Your task to perform on an android device: Go to location settings Image 0: 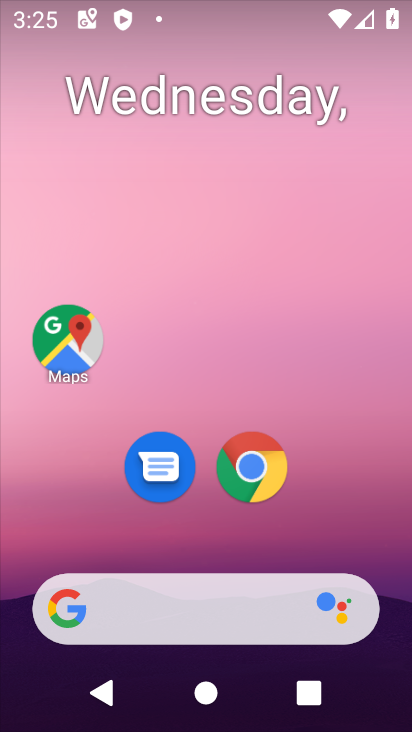
Step 0: drag from (138, 577) to (287, 114)
Your task to perform on an android device: Go to location settings Image 1: 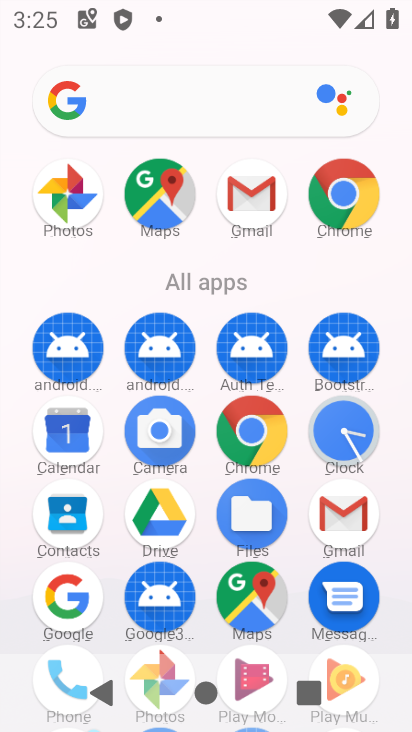
Step 1: drag from (181, 605) to (243, 374)
Your task to perform on an android device: Go to location settings Image 2: 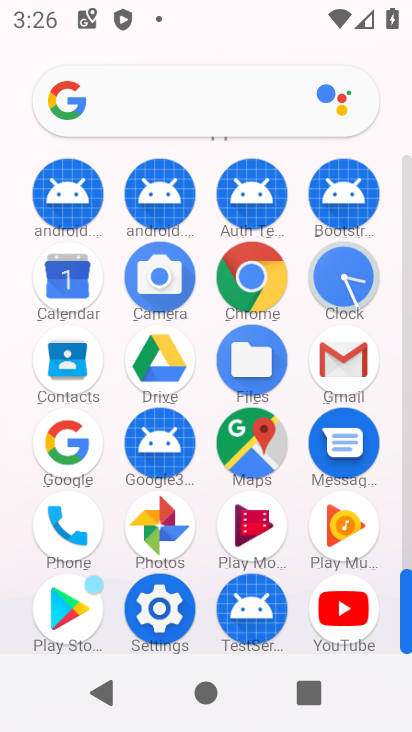
Step 2: click (175, 619)
Your task to perform on an android device: Go to location settings Image 3: 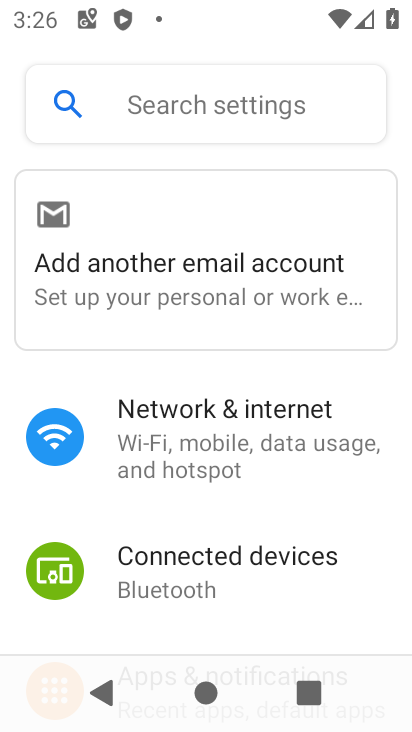
Step 3: drag from (239, 626) to (340, 282)
Your task to perform on an android device: Go to location settings Image 4: 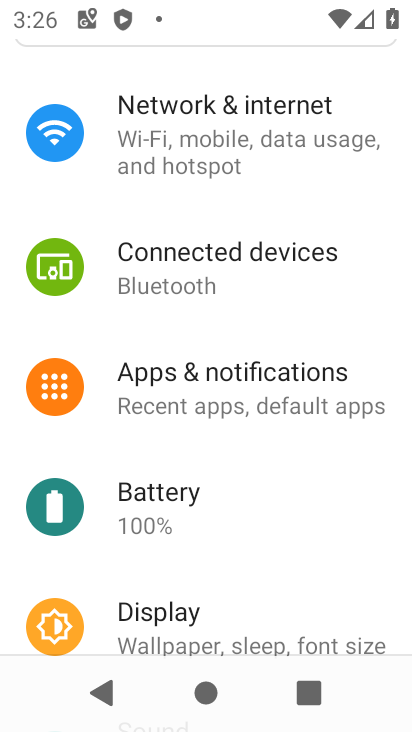
Step 4: drag from (237, 570) to (309, 265)
Your task to perform on an android device: Go to location settings Image 5: 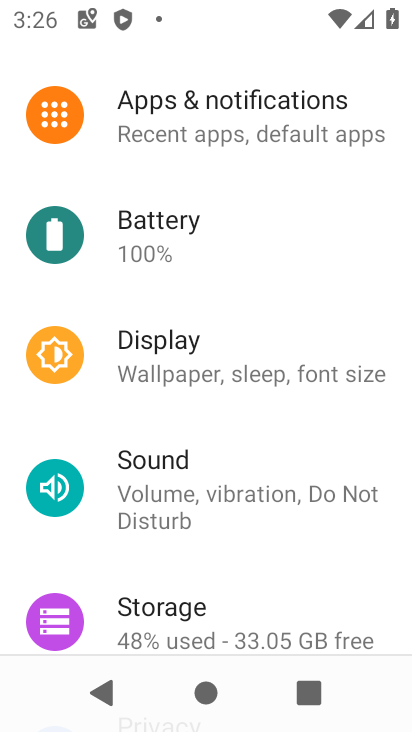
Step 5: drag from (231, 571) to (316, 230)
Your task to perform on an android device: Go to location settings Image 6: 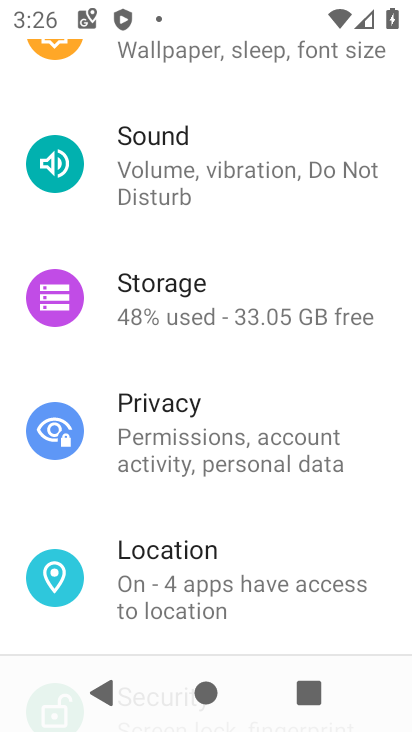
Step 6: click (188, 587)
Your task to perform on an android device: Go to location settings Image 7: 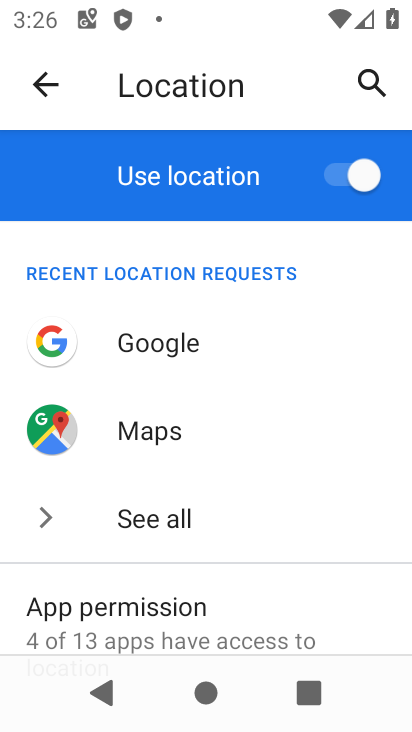
Step 7: task complete